Your task to perform on an android device: What's the weather today? Image 0: 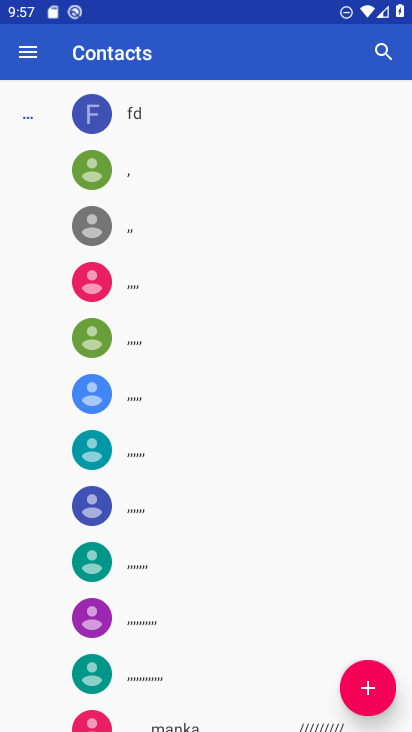
Step 0: press home button
Your task to perform on an android device: What's the weather today? Image 1: 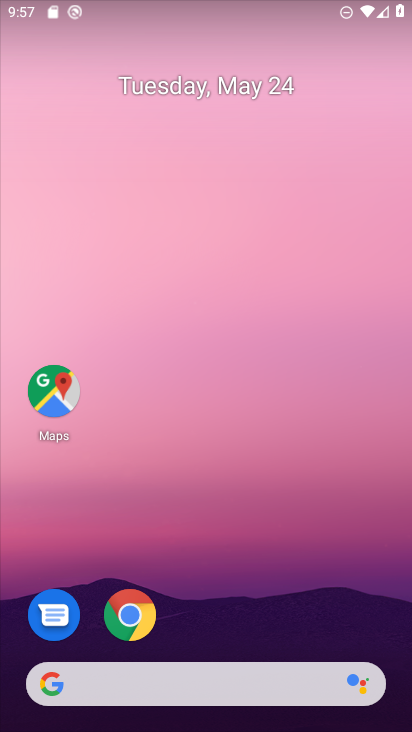
Step 1: click (247, 680)
Your task to perform on an android device: What's the weather today? Image 2: 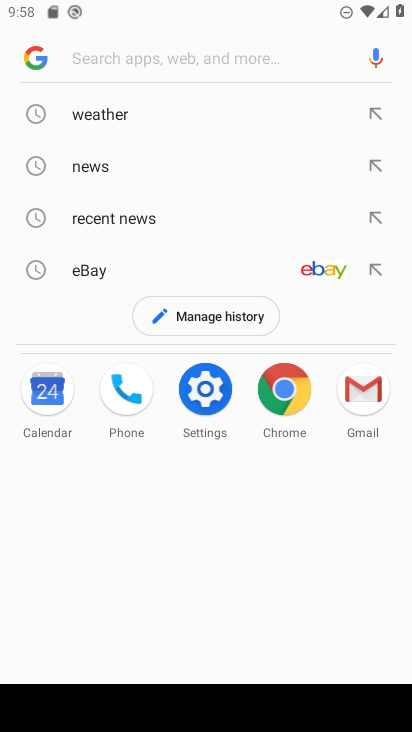
Step 2: click (144, 123)
Your task to perform on an android device: What's the weather today? Image 3: 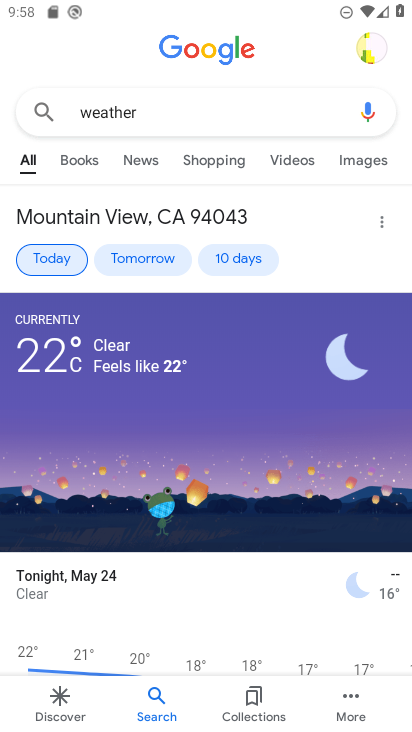
Step 3: task complete